Your task to perform on an android device: What's on my calendar tomorrow? Image 0: 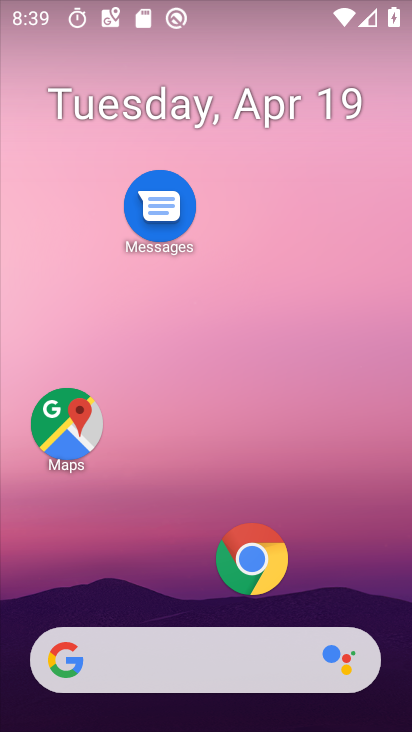
Step 0: drag from (174, 623) to (156, 98)
Your task to perform on an android device: What's on my calendar tomorrow? Image 1: 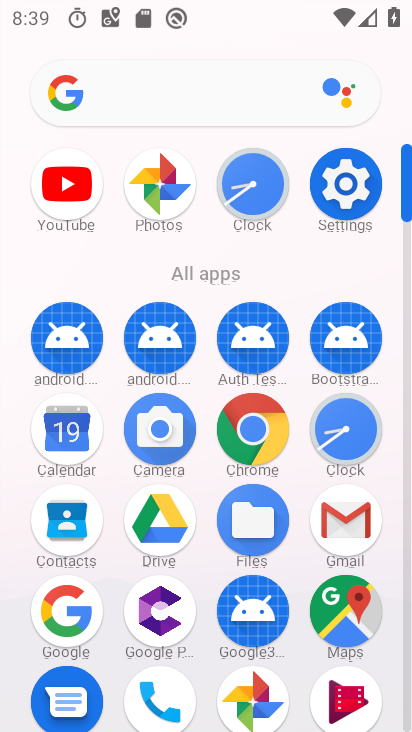
Step 1: click (80, 423)
Your task to perform on an android device: What's on my calendar tomorrow? Image 2: 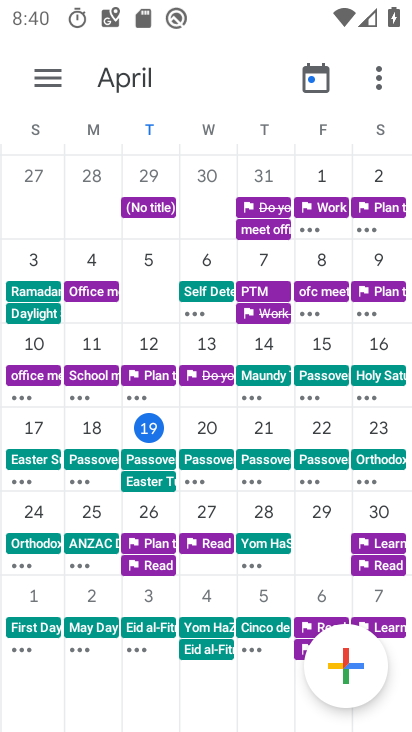
Step 2: task complete